Your task to perform on an android device: Open the phone app and click the voicemail tab. Image 0: 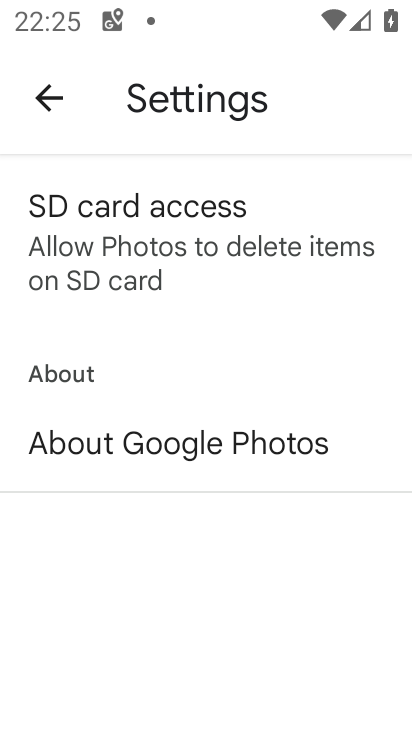
Step 0: press home button
Your task to perform on an android device: Open the phone app and click the voicemail tab. Image 1: 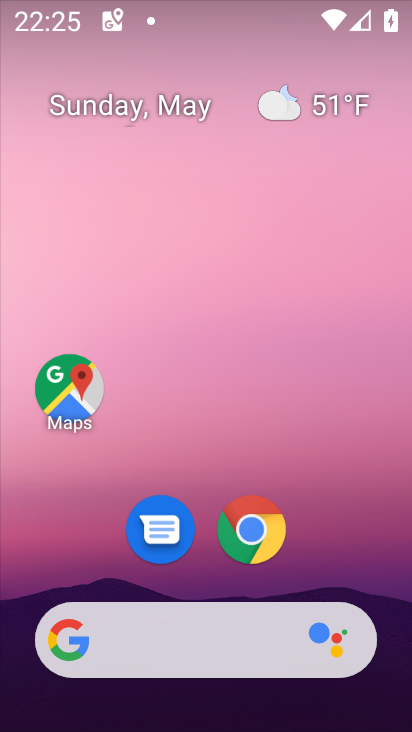
Step 1: drag from (287, 624) to (265, 20)
Your task to perform on an android device: Open the phone app and click the voicemail tab. Image 2: 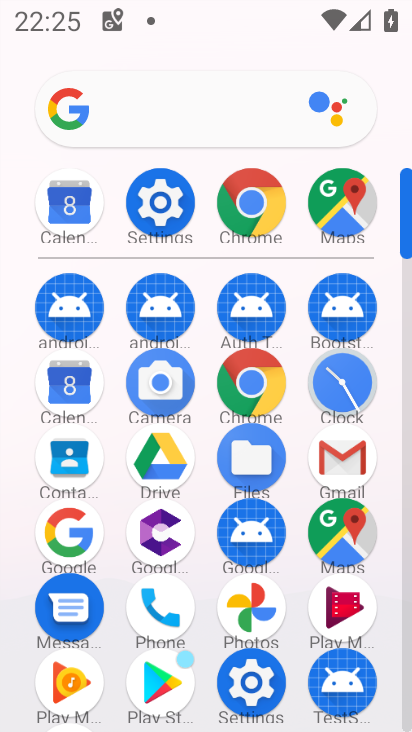
Step 2: click (153, 615)
Your task to perform on an android device: Open the phone app and click the voicemail tab. Image 3: 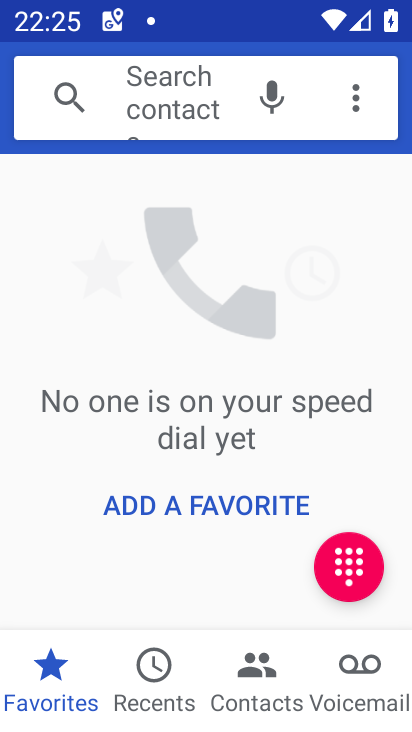
Step 3: click (350, 677)
Your task to perform on an android device: Open the phone app and click the voicemail tab. Image 4: 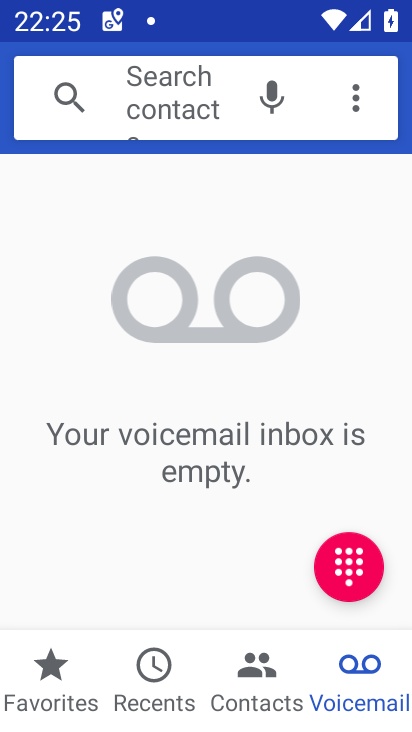
Step 4: task complete